Your task to perform on an android device: Search for Mexican restaurants on Maps Image 0: 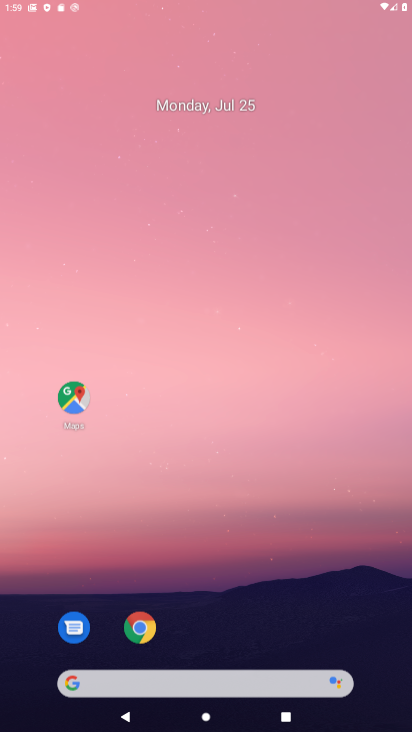
Step 0: click (225, 16)
Your task to perform on an android device: Search for Mexican restaurants on Maps Image 1: 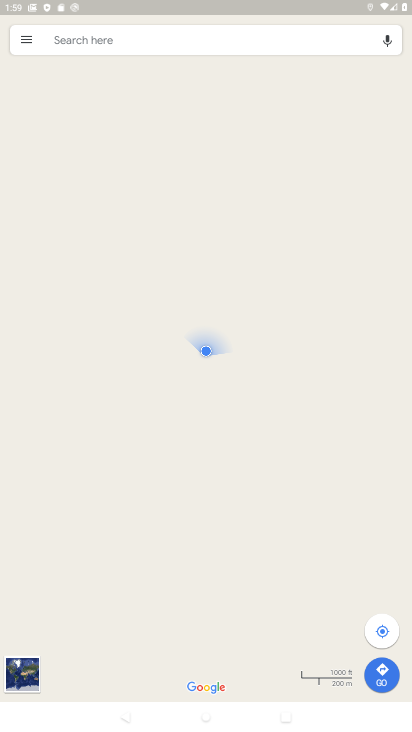
Step 1: click (167, 38)
Your task to perform on an android device: Search for Mexican restaurants on Maps Image 2: 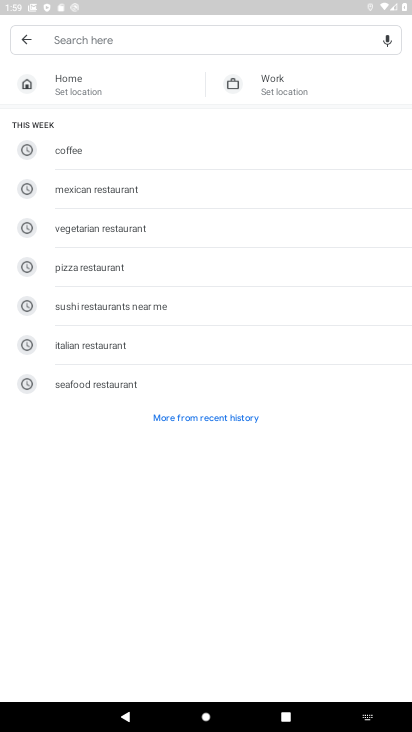
Step 2: type "mexican restaurants"
Your task to perform on an android device: Search for Mexican restaurants on Maps Image 3: 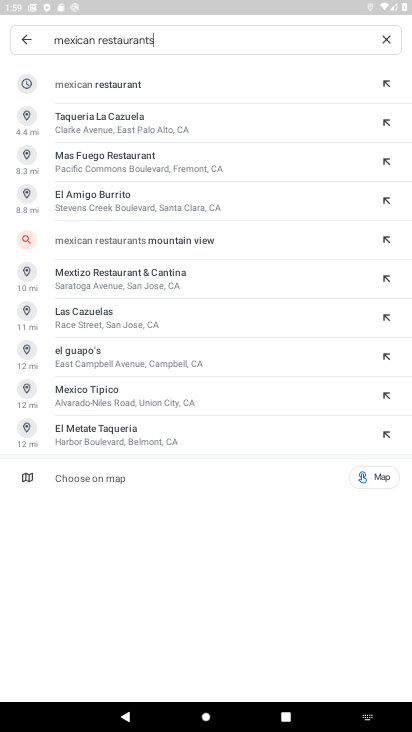
Step 3: click (153, 89)
Your task to perform on an android device: Search for Mexican restaurants on Maps Image 4: 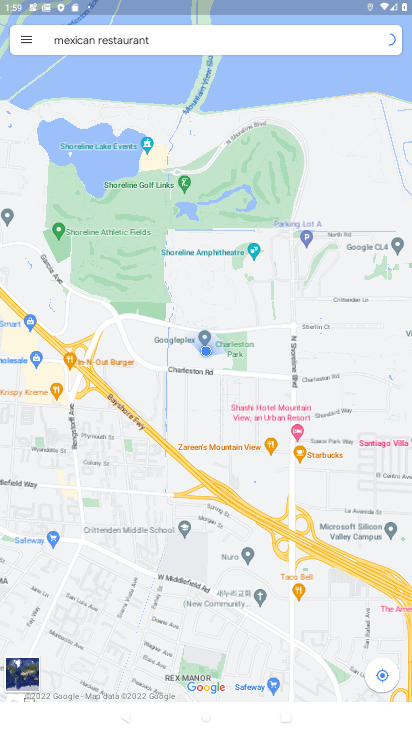
Step 4: task complete